Your task to perform on an android device: Open Google Chrome and open the bookmarks view Image 0: 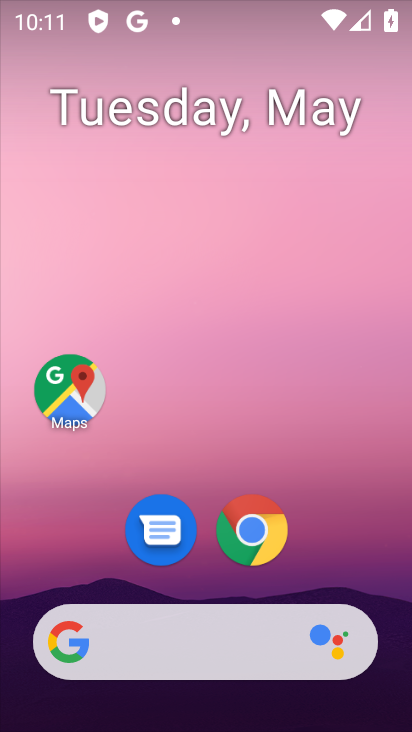
Step 0: click (253, 546)
Your task to perform on an android device: Open Google Chrome and open the bookmarks view Image 1: 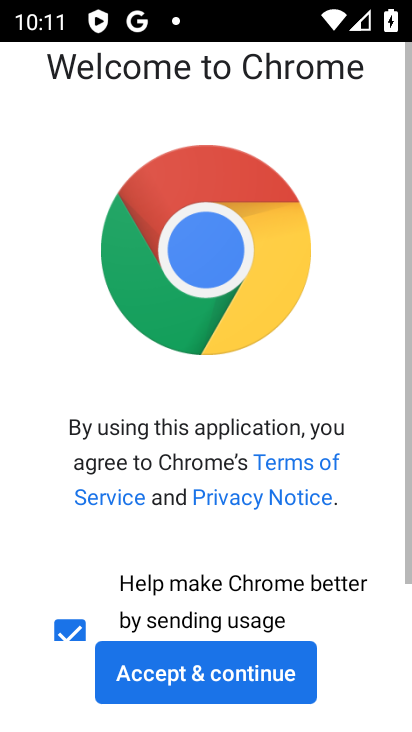
Step 1: click (210, 696)
Your task to perform on an android device: Open Google Chrome and open the bookmarks view Image 2: 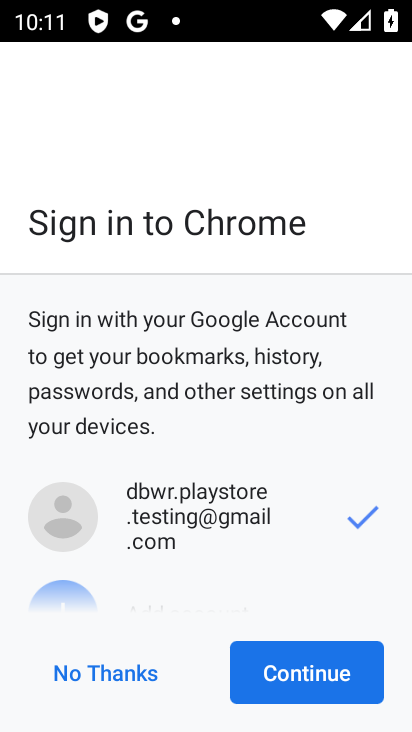
Step 2: click (254, 672)
Your task to perform on an android device: Open Google Chrome and open the bookmarks view Image 3: 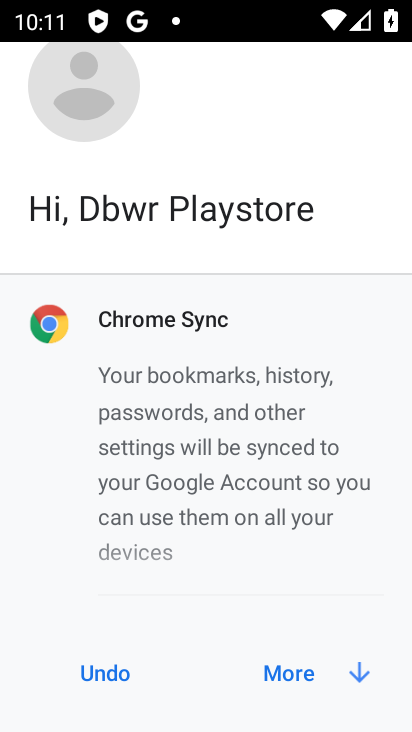
Step 3: click (349, 665)
Your task to perform on an android device: Open Google Chrome and open the bookmarks view Image 4: 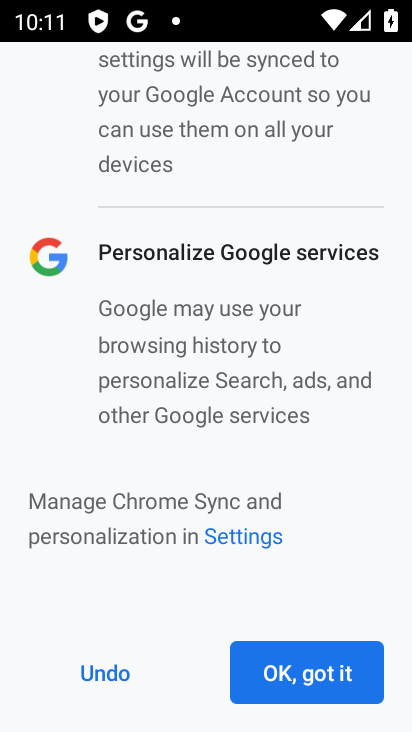
Step 4: click (349, 665)
Your task to perform on an android device: Open Google Chrome and open the bookmarks view Image 5: 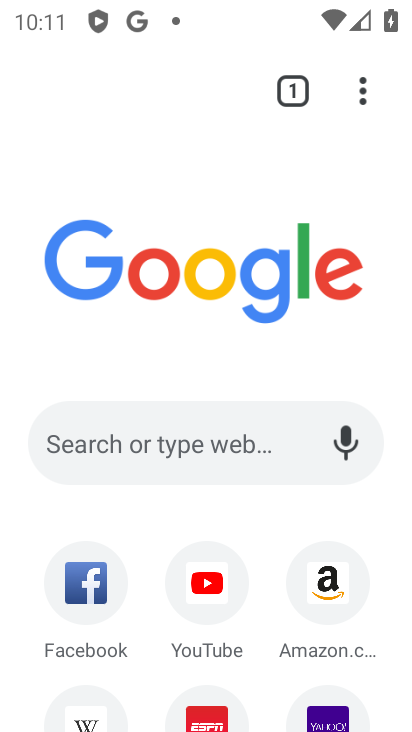
Step 5: click (365, 80)
Your task to perform on an android device: Open Google Chrome and open the bookmarks view Image 6: 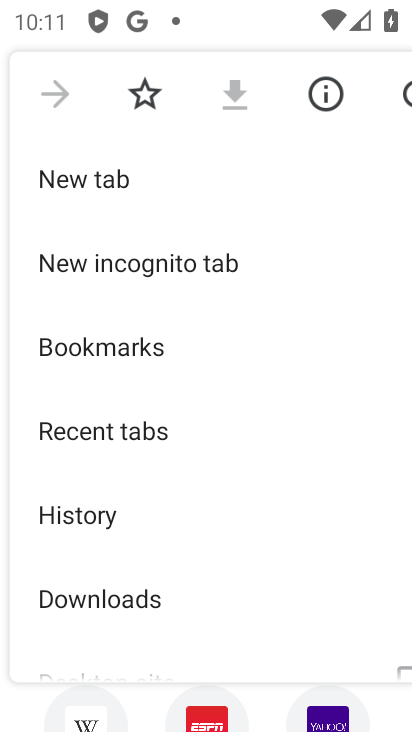
Step 6: click (156, 329)
Your task to perform on an android device: Open Google Chrome and open the bookmarks view Image 7: 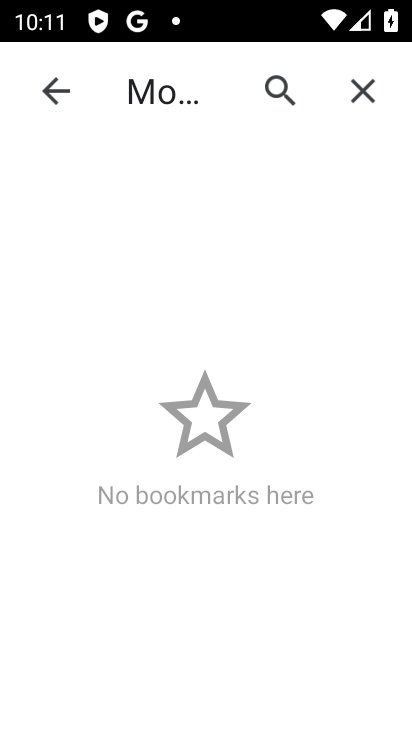
Step 7: task complete